Your task to perform on an android device: empty trash in the gmail app Image 0: 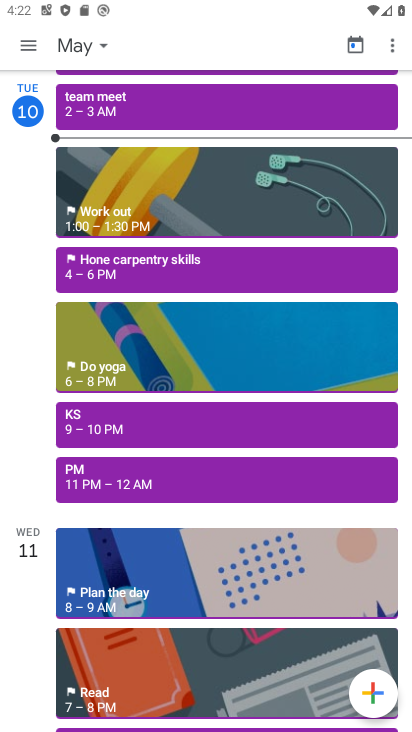
Step 0: press home button
Your task to perform on an android device: empty trash in the gmail app Image 1: 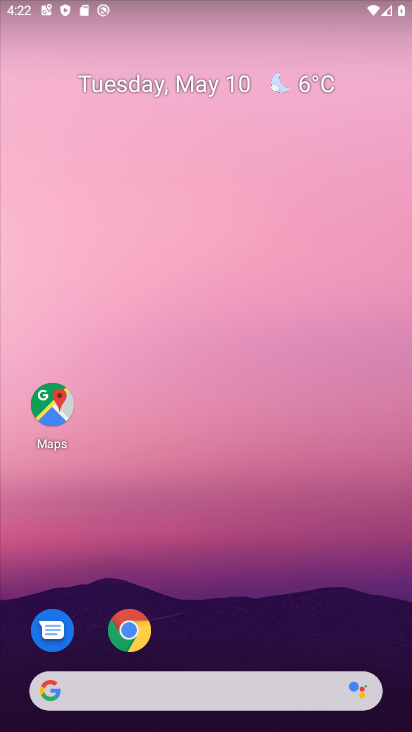
Step 1: drag from (373, 567) to (293, 199)
Your task to perform on an android device: empty trash in the gmail app Image 2: 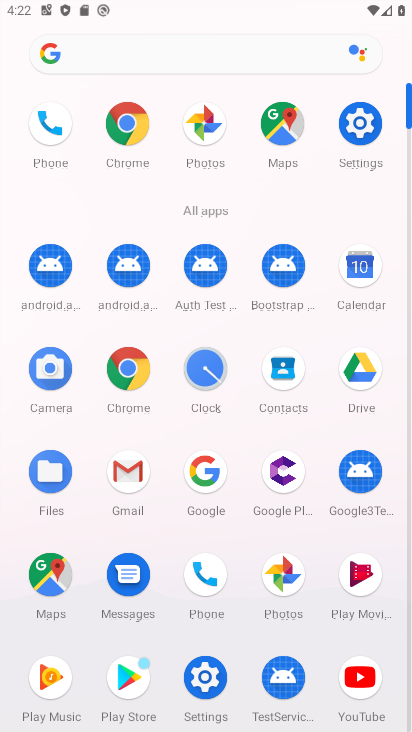
Step 2: click (138, 476)
Your task to perform on an android device: empty trash in the gmail app Image 3: 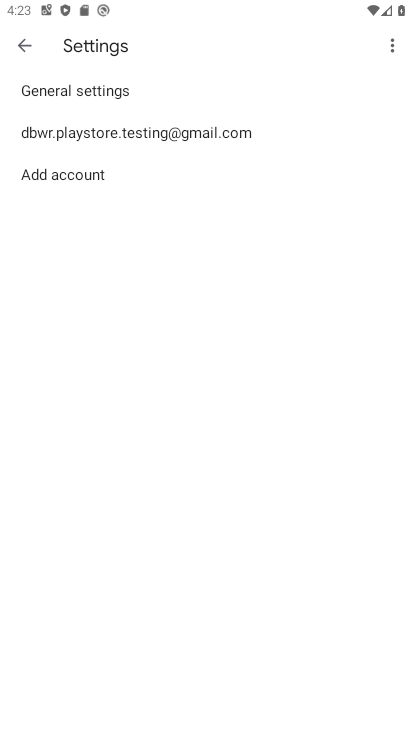
Step 3: click (27, 52)
Your task to perform on an android device: empty trash in the gmail app Image 4: 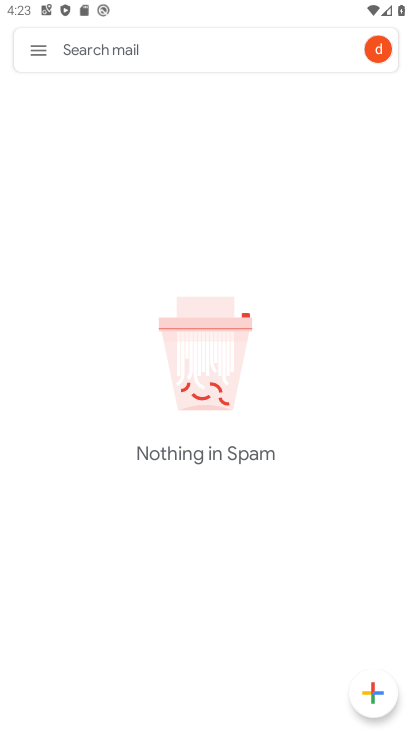
Step 4: click (36, 47)
Your task to perform on an android device: empty trash in the gmail app Image 5: 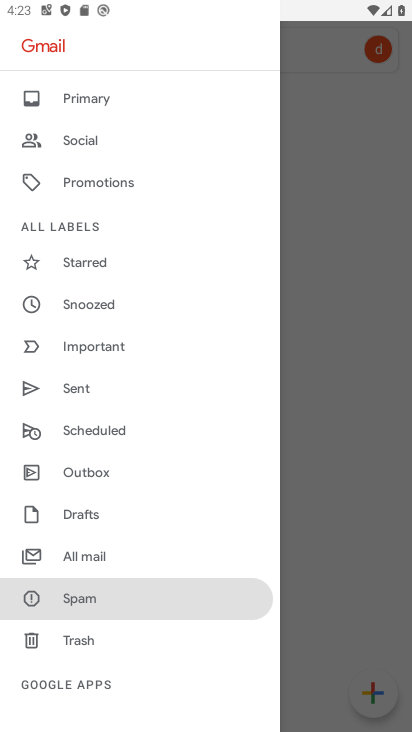
Step 5: click (79, 642)
Your task to perform on an android device: empty trash in the gmail app Image 6: 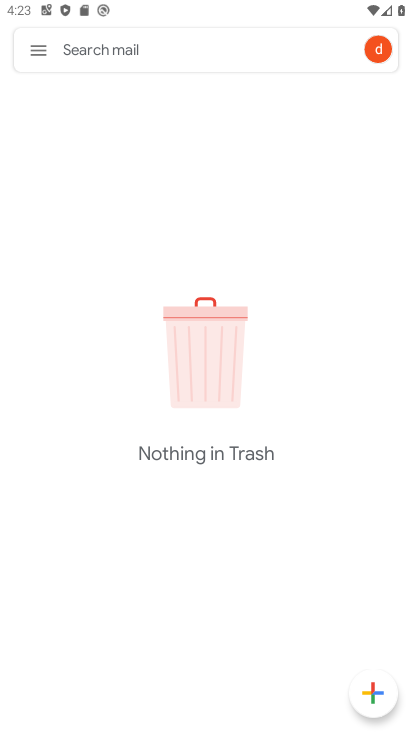
Step 6: task complete